Your task to perform on an android device: Open calendar and show me the third week of next month Image 0: 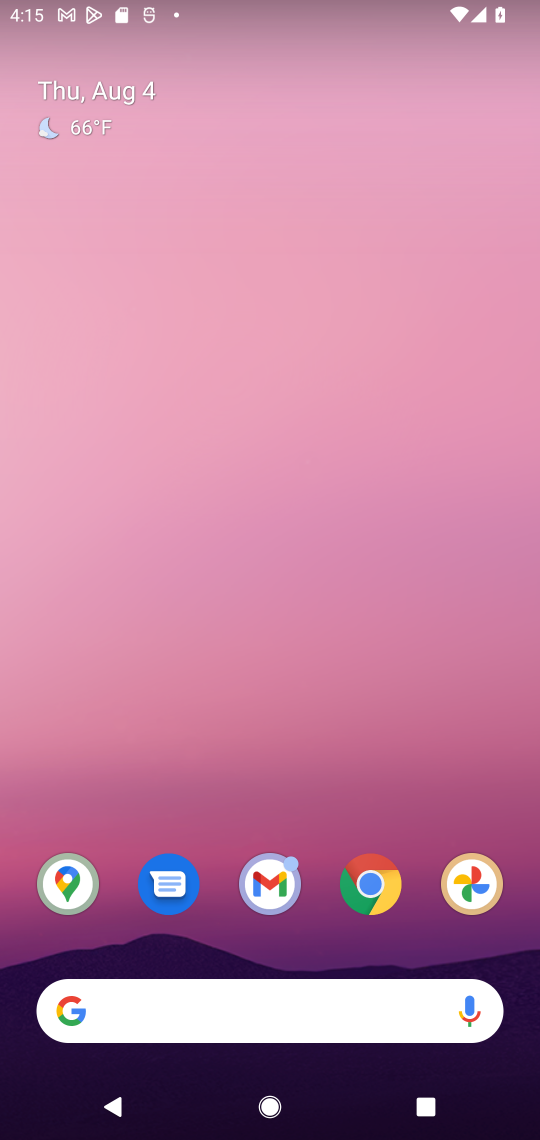
Step 0: drag from (214, 943) to (384, 192)
Your task to perform on an android device: Open calendar and show me the third week of next month Image 1: 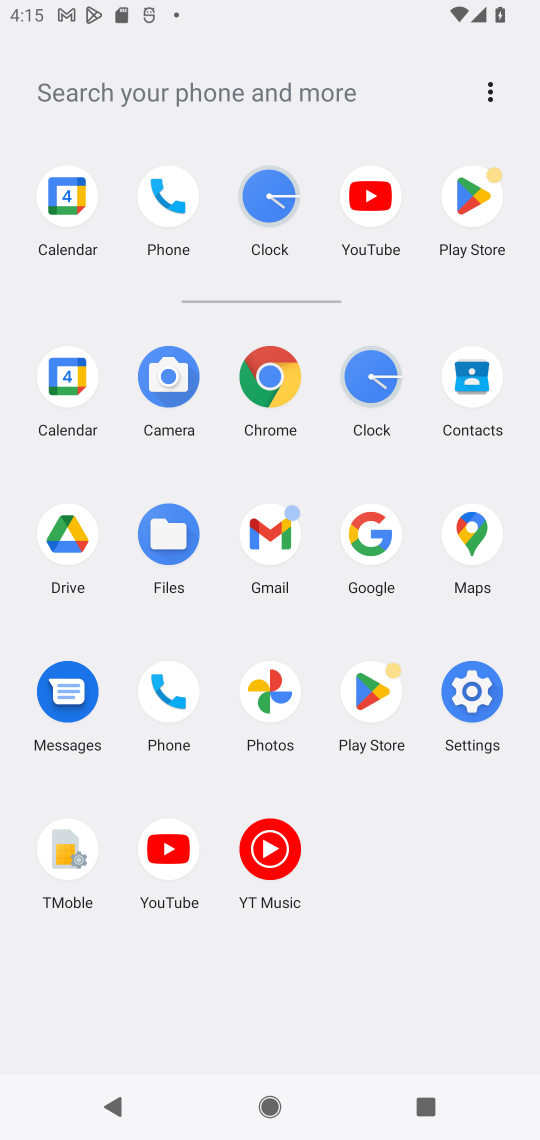
Step 1: click (69, 223)
Your task to perform on an android device: Open calendar and show me the third week of next month Image 2: 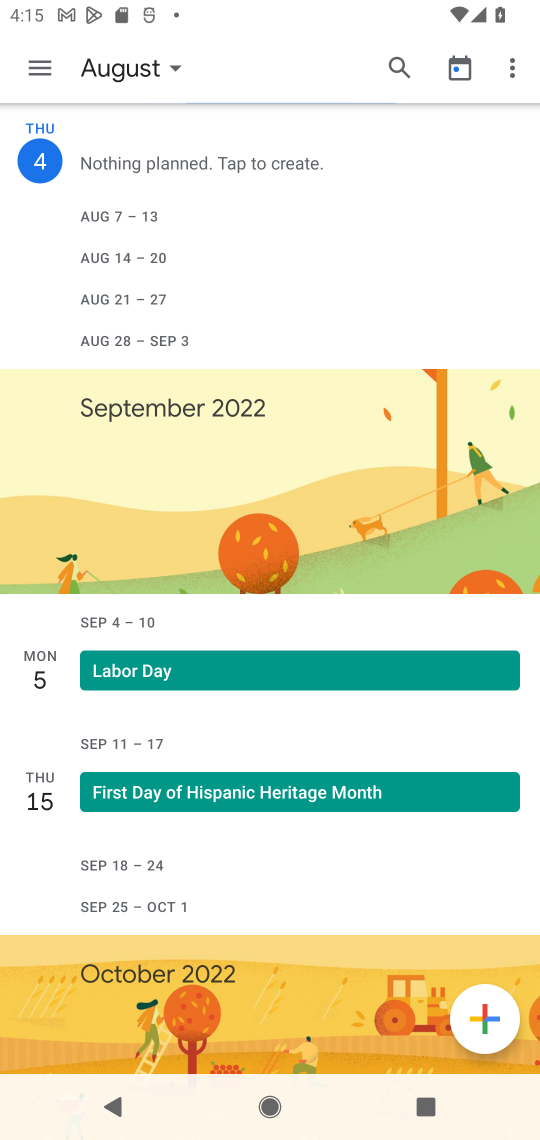
Step 2: task complete